Your task to perform on an android device: remove spam from my inbox in the gmail app Image 0: 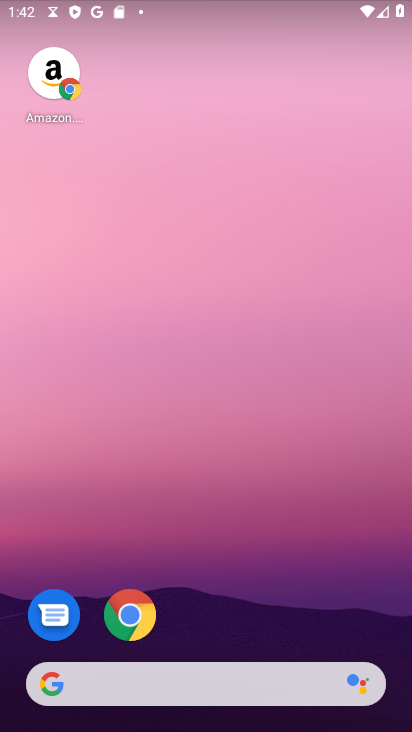
Step 0: drag from (358, 587) to (405, 15)
Your task to perform on an android device: remove spam from my inbox in the gmail app Image 1: 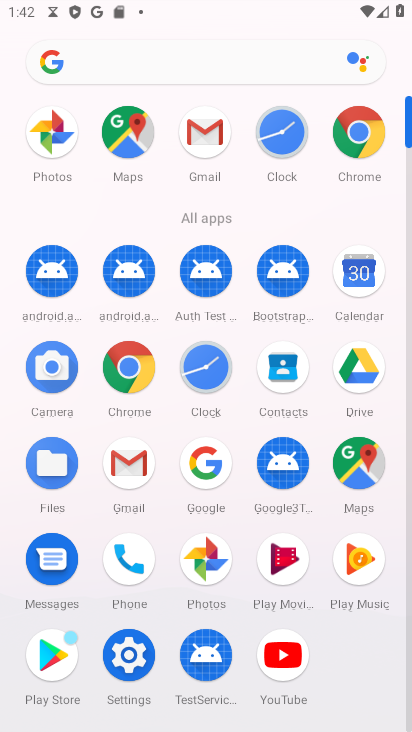
Step 1: click (208, 119)
Your task to perform on an android device: remove spam from my inbox in the gmail app Image 2: 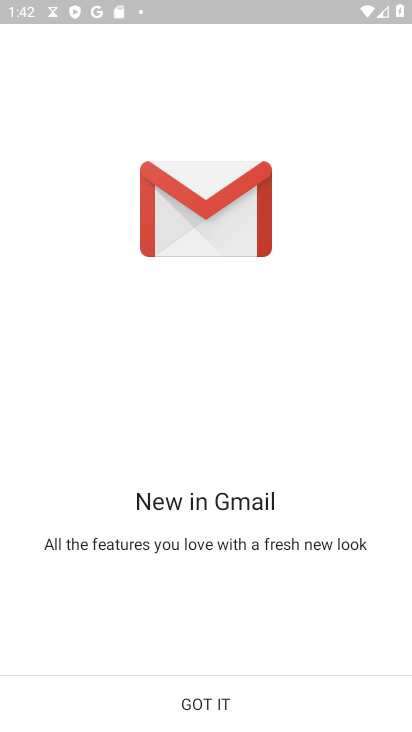
Step 2: click (201, 720)
Your task to perform on an android device: remove spam from my inbox in the gmail app Image 3: 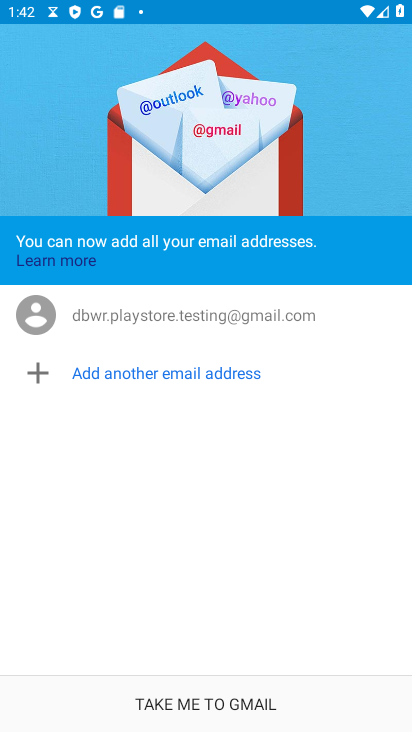
Step 3: click (202, 710)
Your task to perform on an android device: remove spam from my inbox in the gmail app Image 4: 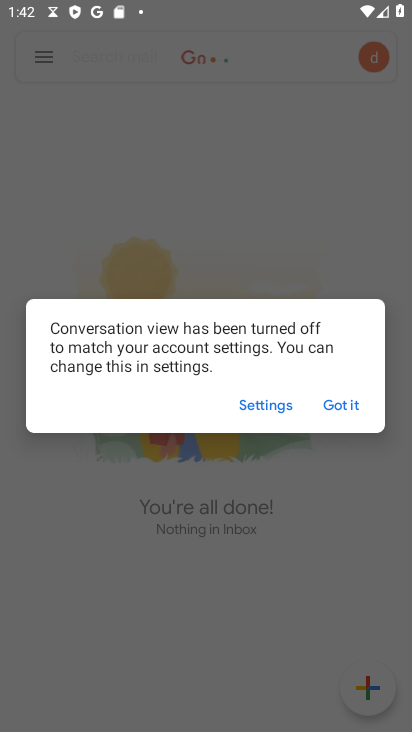
Step 4: click (343, 415)
Your task to perform on an android device: remove spam from my inbox in the gmail app Image 5: 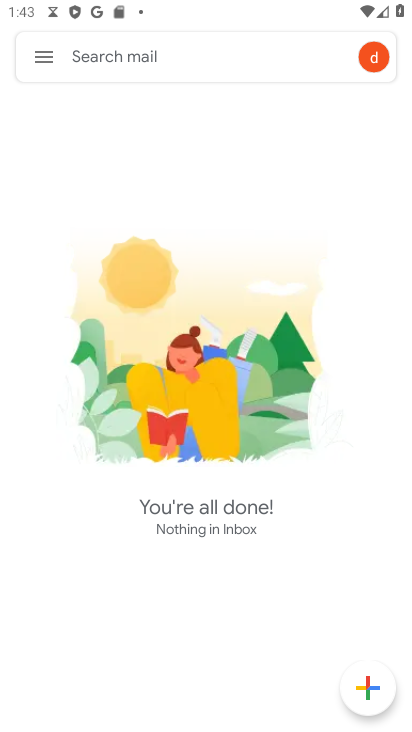
Step 5: click (33, 60)
Your task to perform on an android device: remove spam from my inbox in the gmail app Image 6: 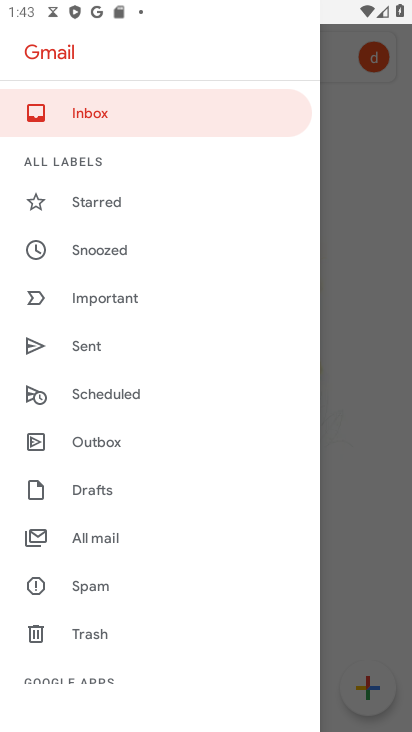
Step 6: click (105, 589)
Your task to perform on an android device: remove spam from my inbox in the gmail app Image 7: 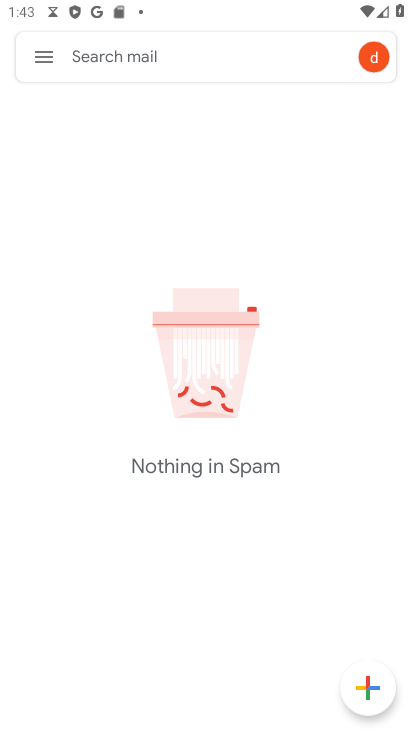
Step 7: task complete